Your task to perform on an android device: set default search engine in the chrome app Image 0: 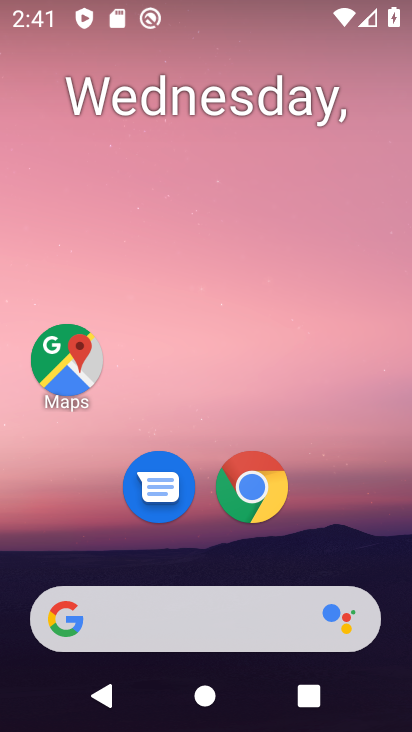
Step 0: drag from (274, 583) to (281, 111)
Your task to perform on an android device: set default search engine in the chrome app Image 1: 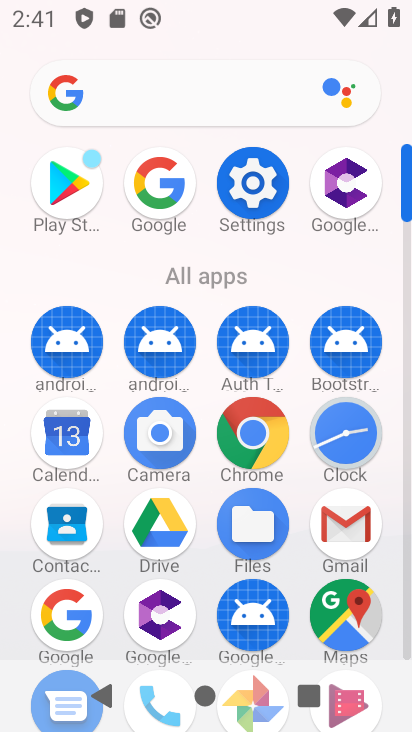
Step 1: click (254, 439)
Your task to perform on an android device: set default search engine in the chrome app Image 2: 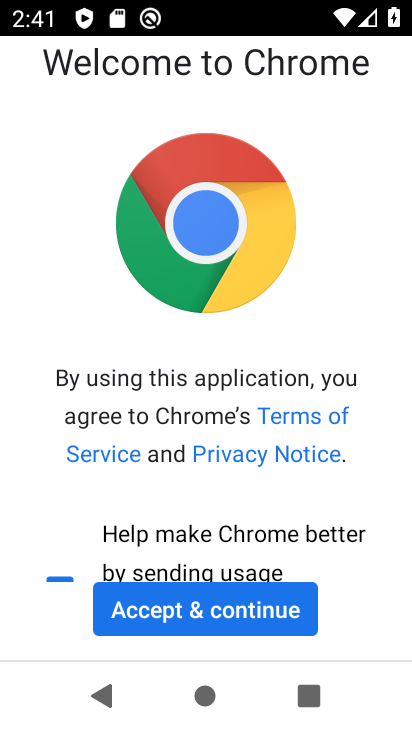
Step 2: click (219, 615)
Your task to perform on an android device: set default search engine in the chrome app Image 3: 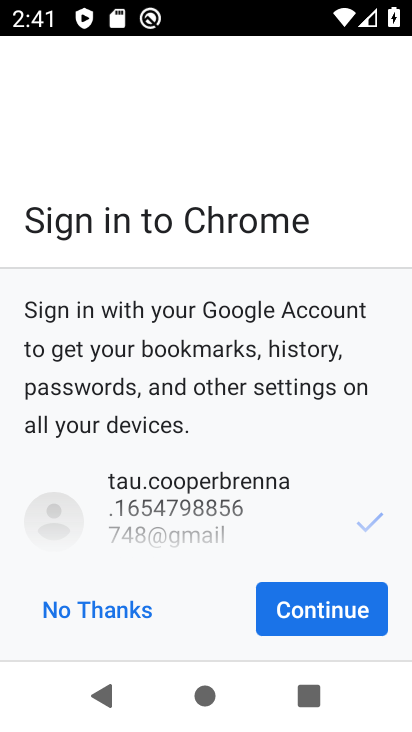
Step 3: click (318, 612)
Your task to perform on an android device: set default search engine in the chrome app Image 4: 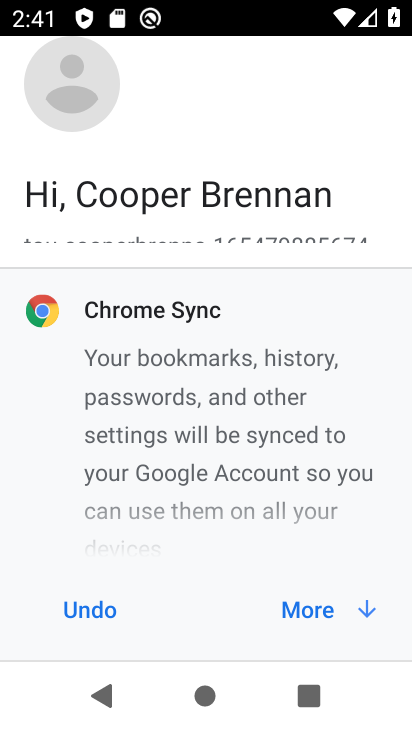
Step 4: click (315, 614)
Your task to perform on an android device: set default search engine in the chrome app Image 5: 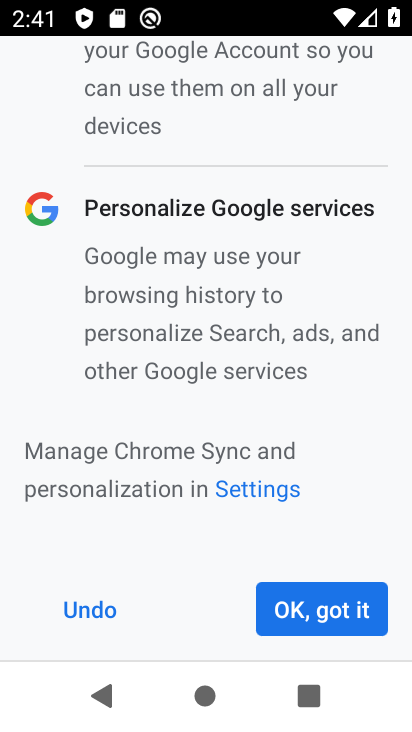
Step 5: click (315, 614)
Your task to perform on an android device: set default search engine in the chrome app Image 6: 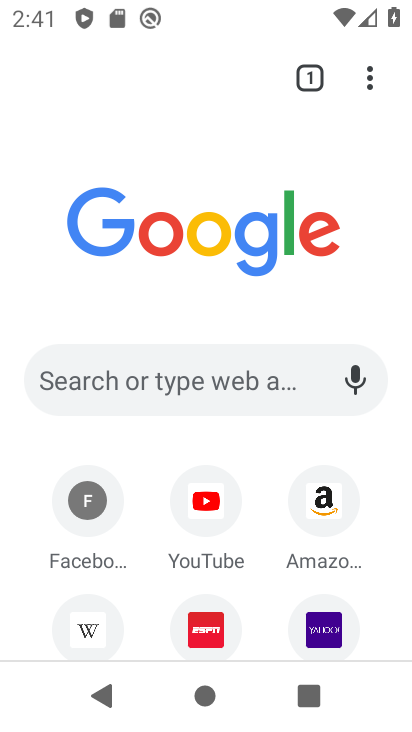
Step 6: drag from (200, 550) to (229, 323)
Your task to perform on an android device: set default search engine in the chrome app Image 7: 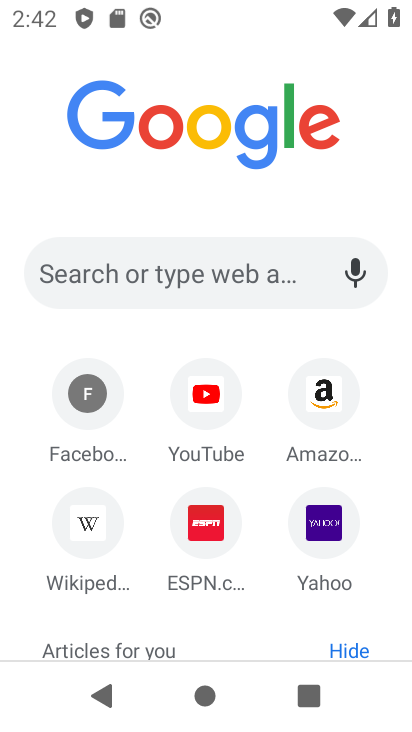
Step 7: drag from (287, 307) to (278, 718)
Your task to perform on an android device: set default search engine in the chrome app Image 8: 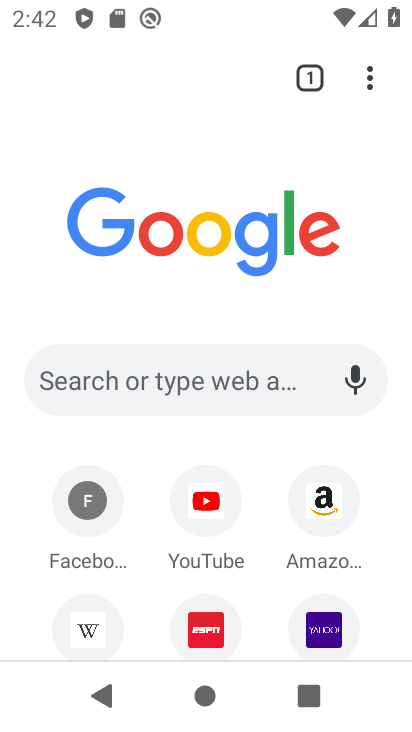
Step 8: click (372, 90)
Your task to perform on an android device: set default search engine in the chrome app Image 9: 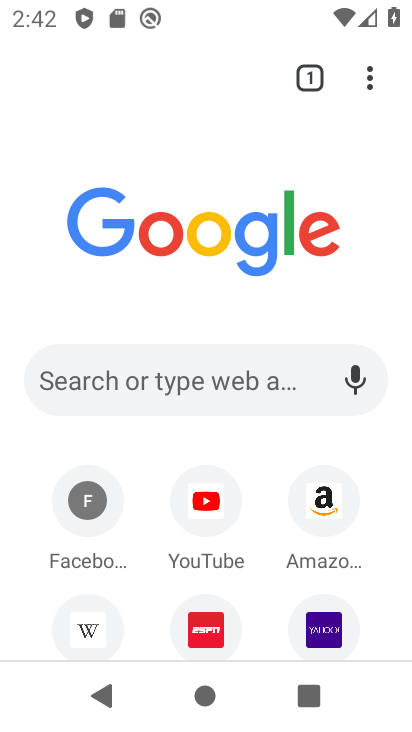
Step 9: click (372, 90)
Your task to perform on an android device: set default search engine in the chrome app Image 10: 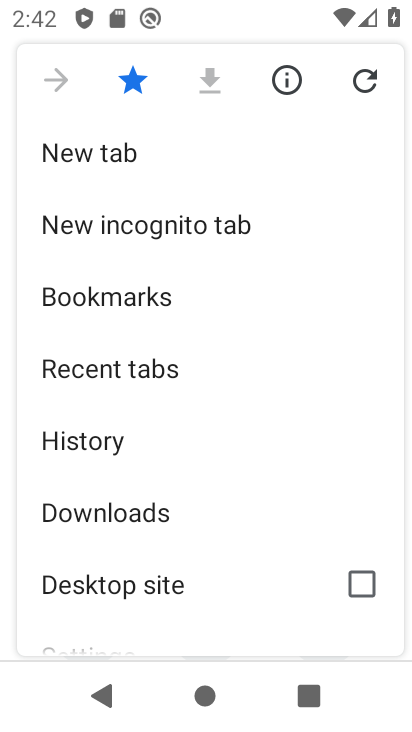
Step 10: drag from (116, 519) to (139, 72)
Your task to perform on an android device: set default search engine in the chrome app Image 11: 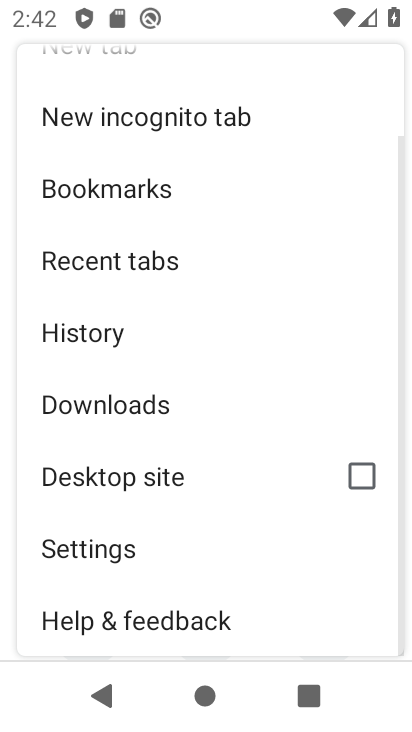
Step 11: click (84, 539)
Your task to perform on an android device: set default search engine in the chrome app Image 12: 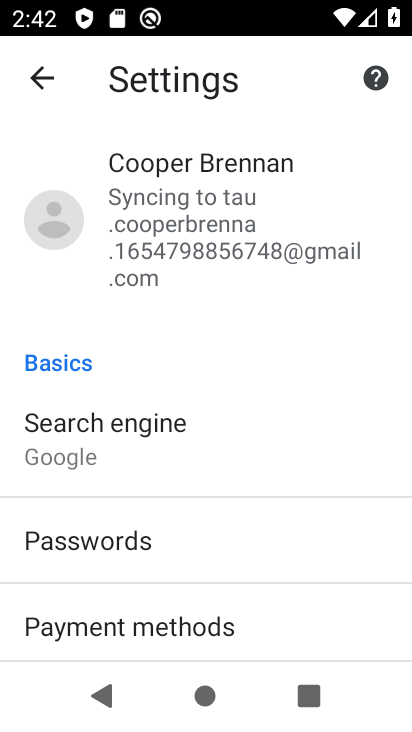
Step 12: drag from (125, 573) to (174, 108)
Your task to perform on an android device: set default search engine in the chrome app Image 13: 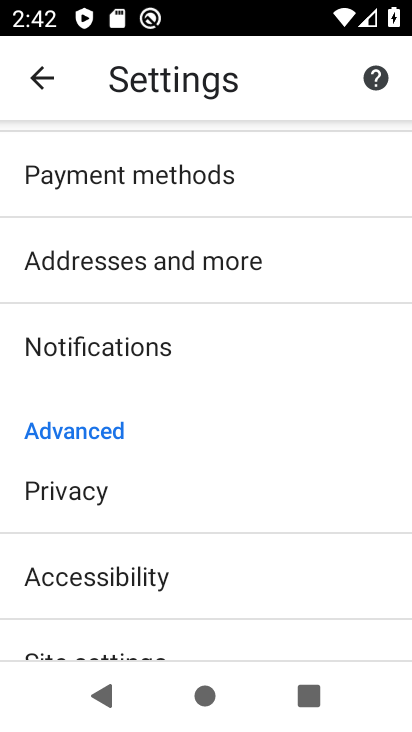
Step 13: drag from (123, 538) to (157, 289)
Your task to perform on an android device: set default search engine in the chrome app Image 14: 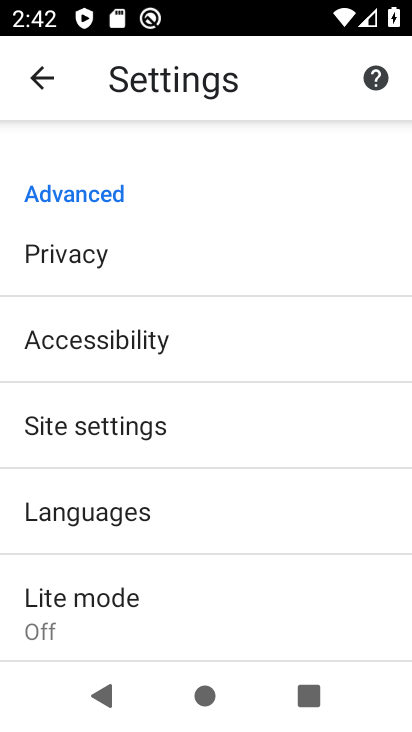
Step 14: drag from (95, 271) to (95, 717)
Your task to perform on an android device: set default search engine in the chrome app Image 15: 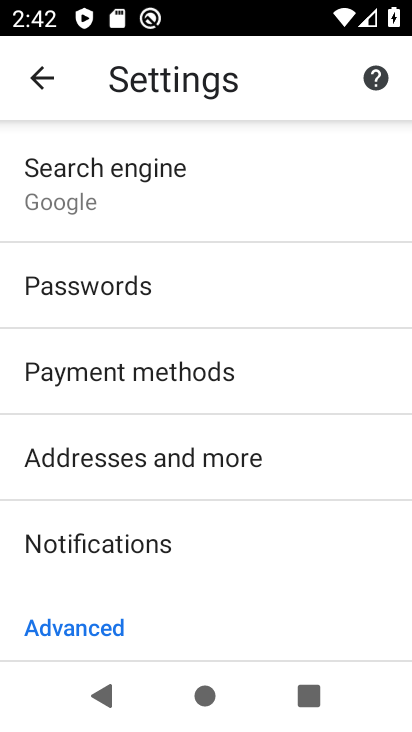
Step 15: click (118, 187)
Your task to perform on an android device: set default search engine in the chrome app Image 16: 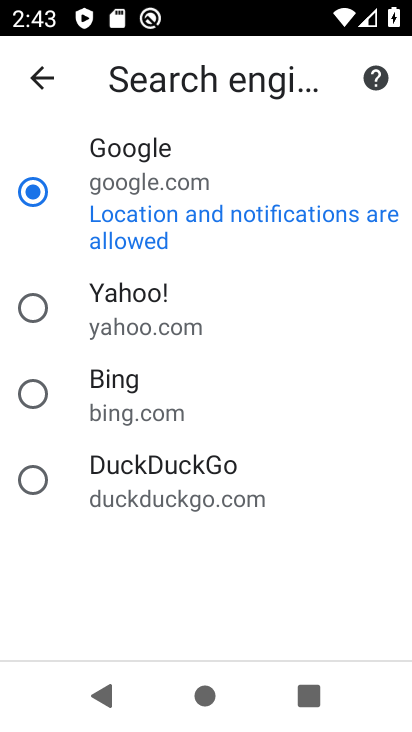
Step 16: click (119, 187)
Your task to perform on an android device: set default search engine in the chrome app Image 17: 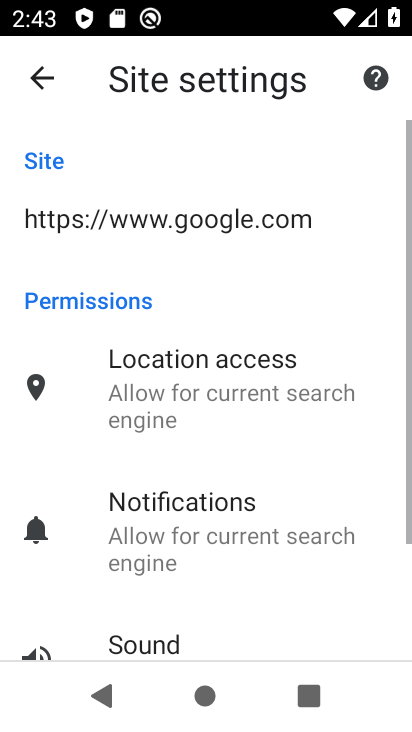
Step 17: task complete